Your task to perform on an android device: change notification settings in the gmail app Image 0: 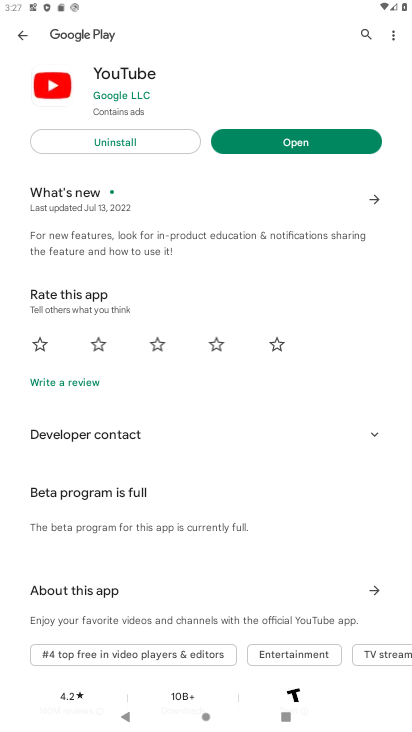
Step 0: press home button
Your task to perform on an android device: change notification settings in the gmail app Image 1: 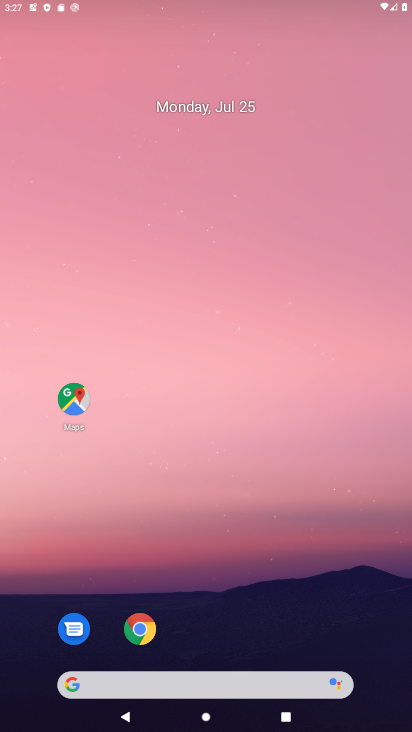
Step 1: drag from (246, 623) to (399, 87)
Your task to perform on an android device: change notification settings in the gmail app Image 2: 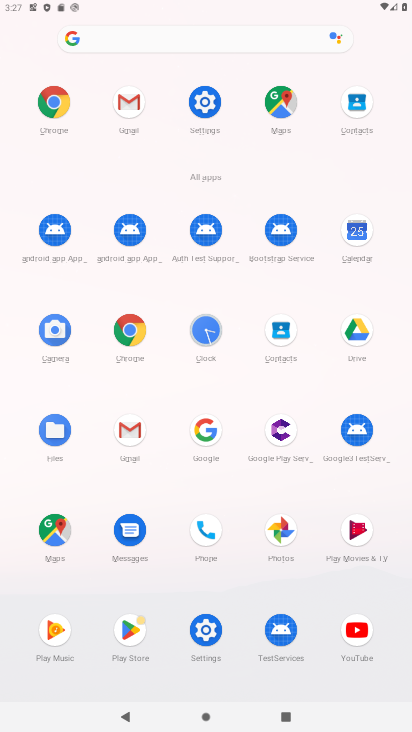
Step 2: click (119, 440)
Your task to perform on an android device: change notification settings in the gmail app Image 3: 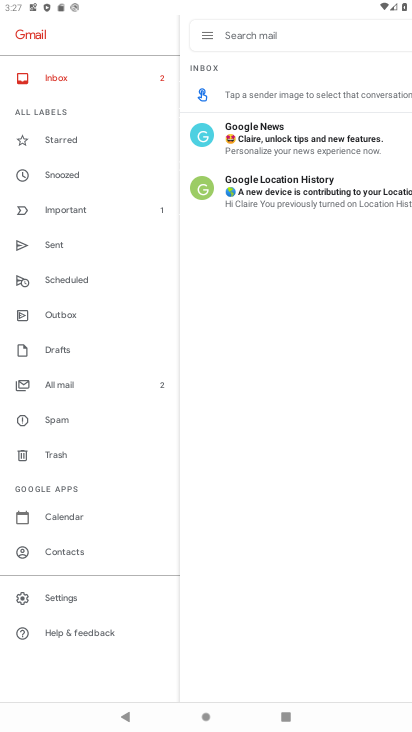
Step 3: click (83, 589)
Your task to perform on an android device: change notification settings in the gmail app Image 4: 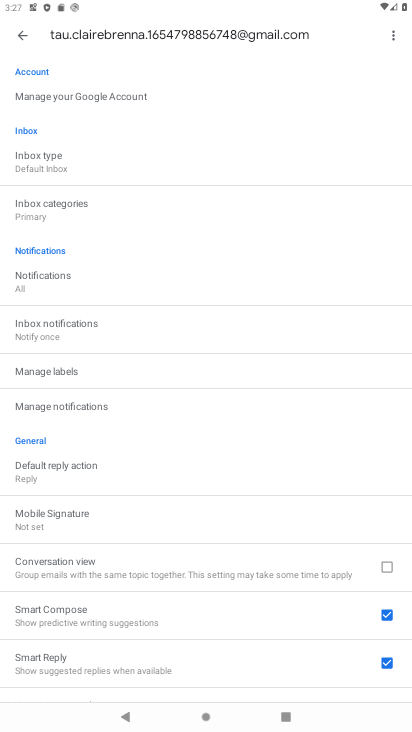
Step 4: click (71, 399)
Your task to perform on an android device: change notification settings in the gmail app Image 5: 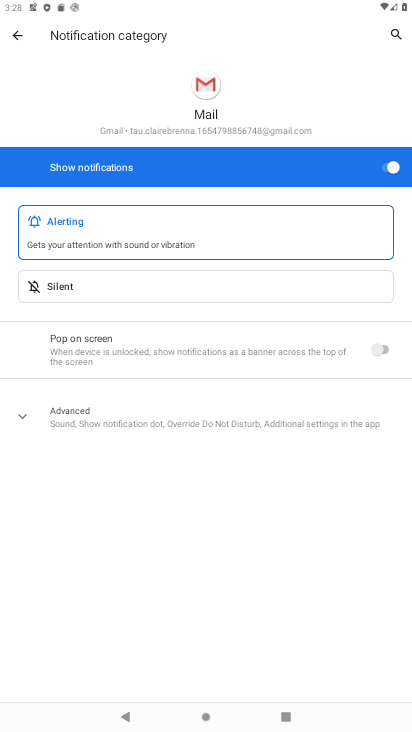
Step 5: click (385, 163)
Your task to perform on an android device: change notification settings in the gmail app Image 6: 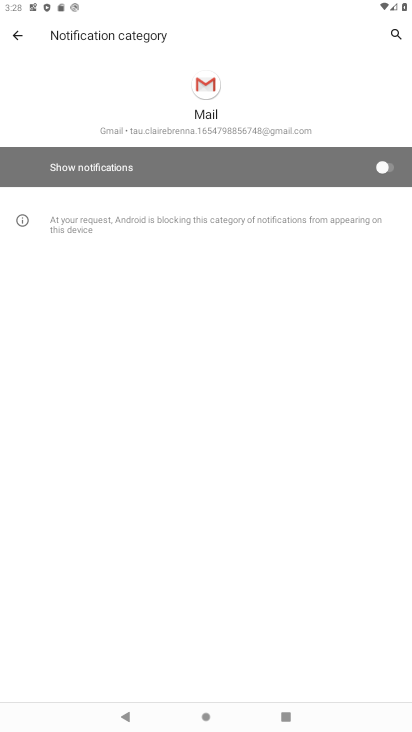
Step 6: task complete